Your task to perform on an android device: turn off wifi Image 0: 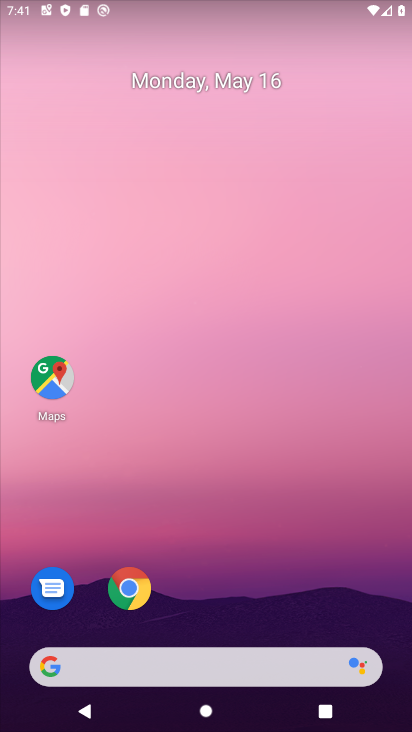
Step 0: drag from (281, 541) to (317, 0)
Your task to perform on an android device: turn off wifi Image 1: 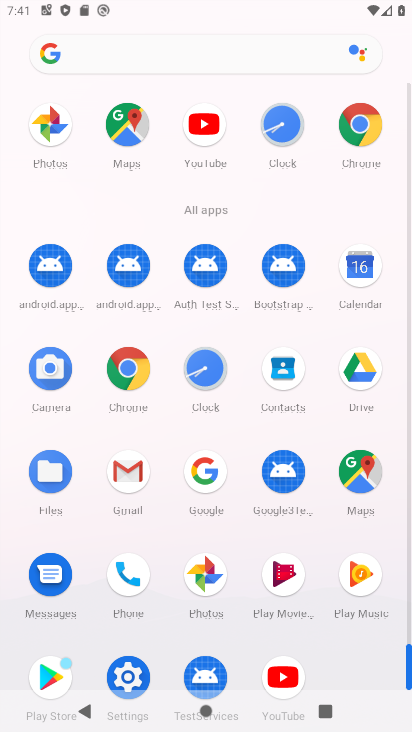
Step 1: drag from (15, 567) to (15, 311)
Your task to perform on an android device: turn off wifi Image 2: 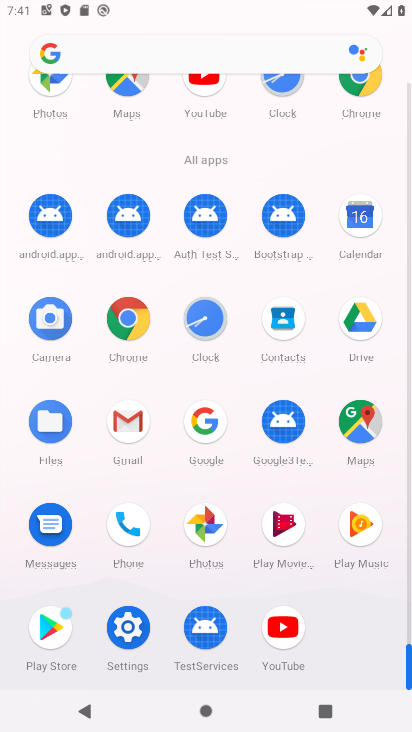
Step 2: click (127, 627)
Your task to perform on an android device: turn off wifi Image 3: 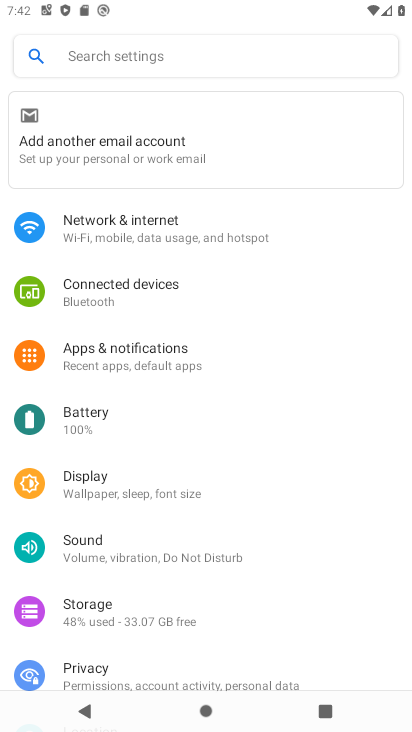
Step 3: click (167, 216)
Your task to perform on an android device: turn off wifi Image 4: 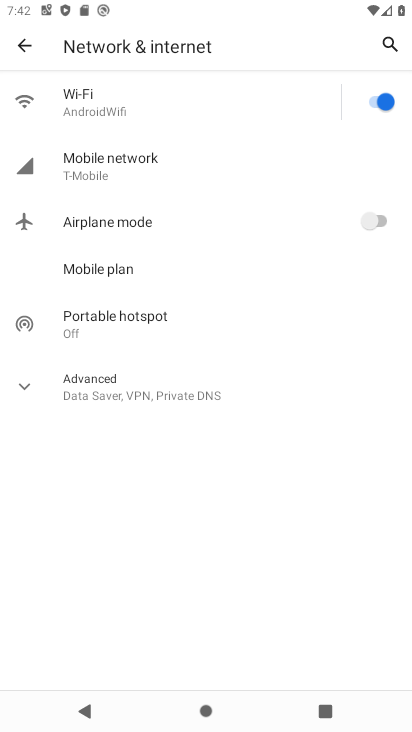
Step 4: click (386, 97)
Your task to perform on an android device: turn off wifi Image 5: 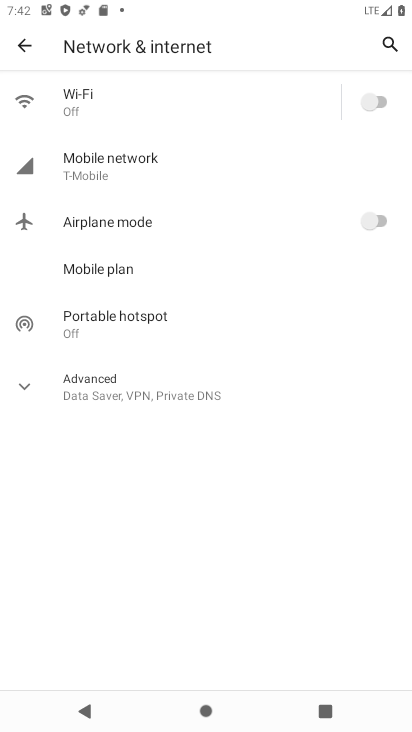
Step 5: task complete